Your task to perform on an android device: Go to Maps Image 0: 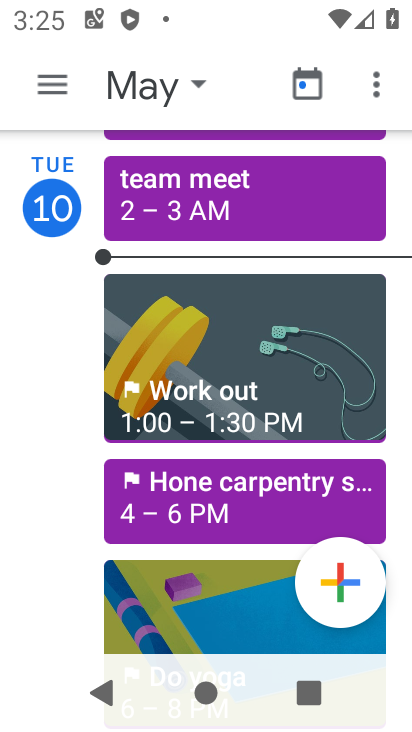
Step 0: press home button
Your task to perform on an android device: Go to Maps Image 1: 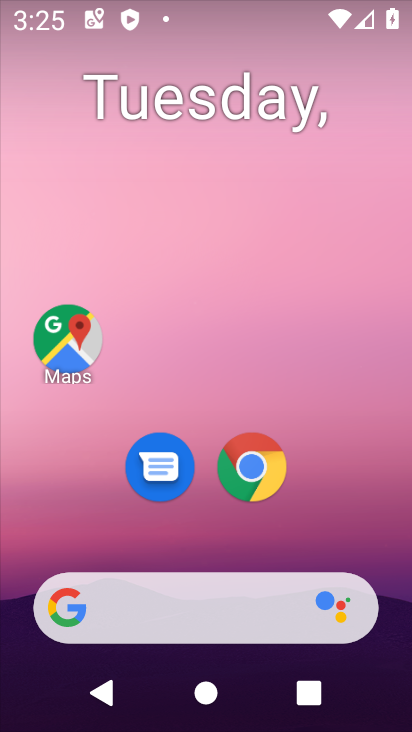
Step 1: click (72, 353)
Your task to perform on an android device: Go to Maps Image 2: 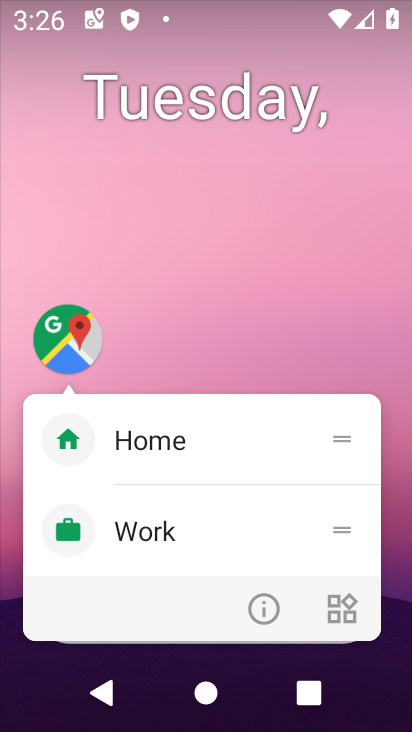
Step 2: click (266, 278)
Your task to perform on an android device: Go to Maps Image 3: 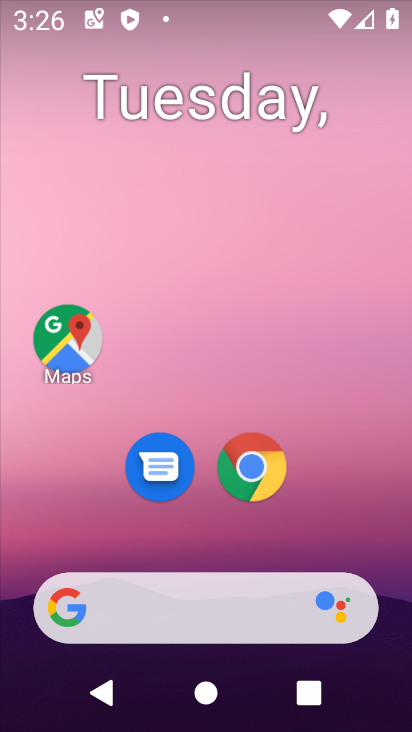
Step 3: click (79, 332)
Your task to perform on an android device: Go to Maps Image 4: 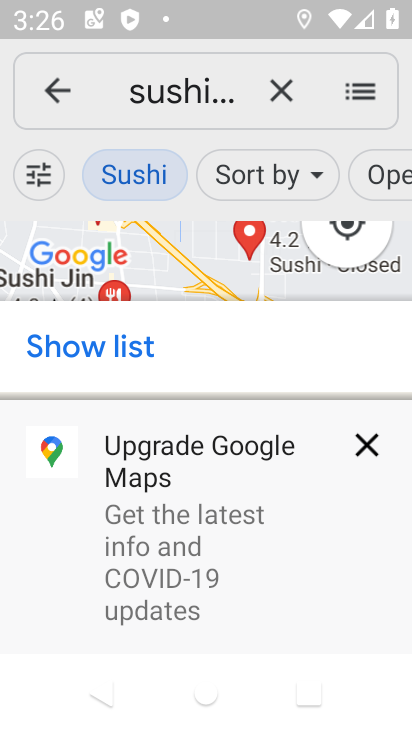
Step 4: click (360, 448)
Your task to perform on an android device: Go to Maps Image 5: 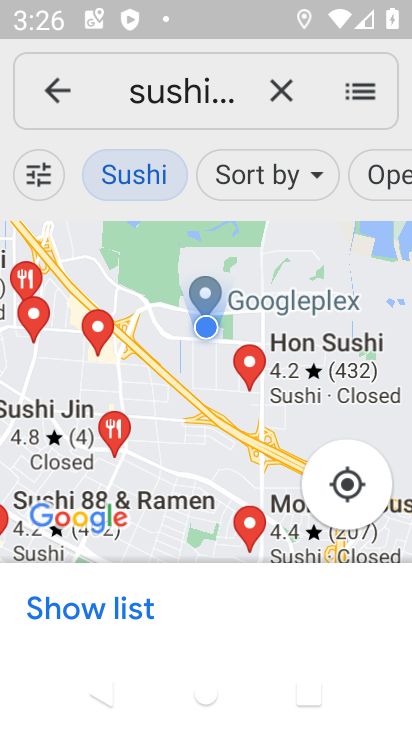
Step 5: task complete